Your task to perform on an android device: stop showing notifications on the lock screen Image 0: 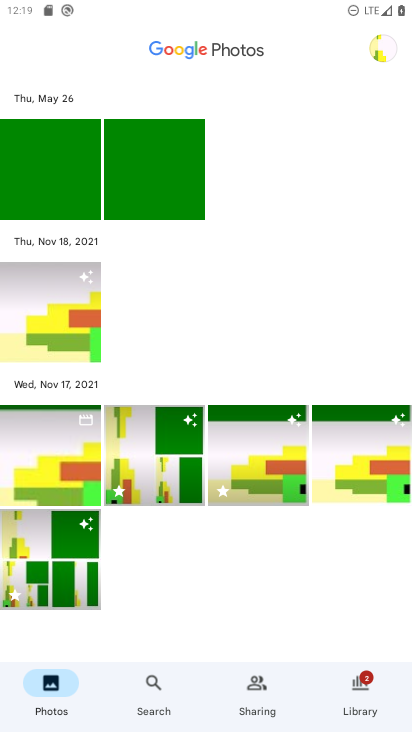
Step 0: press home button
Your task to perform on an android device: stop showing notifications on the lock screen Image 1: 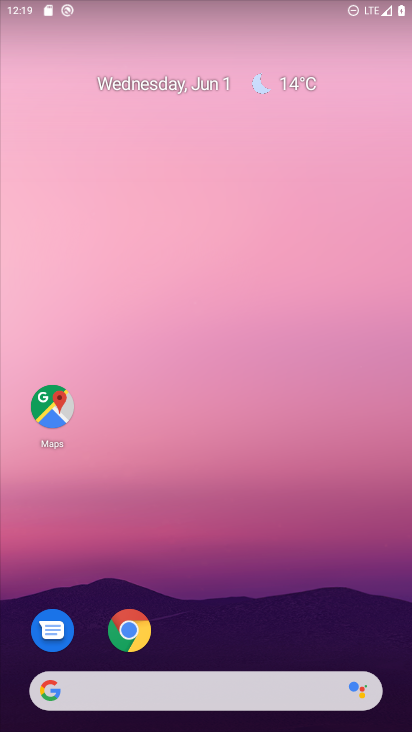
Step 1: drag from (290, 596) to (270, 81)
Your task to perform on an android device: stop showing notifications on the lock screen Image 2: 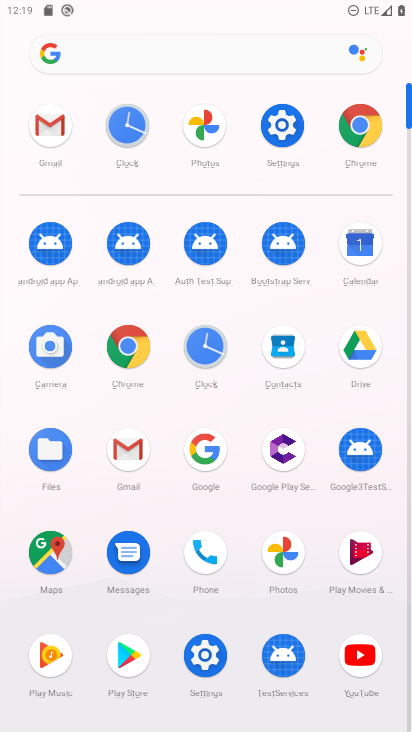
Step 2: click (289, 128)
Your task to perform on an android device: stop showing notifications on the lock screen Image 3: 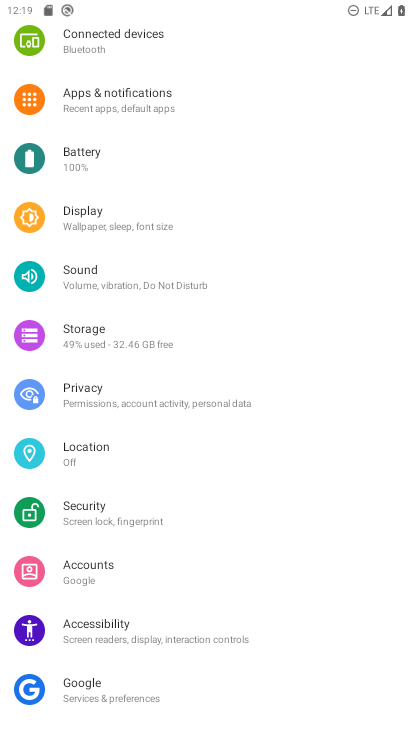
Step 3: drag from (224, 146) to (242, 610)
Your task to perform on an android device: stop showing notifications on the lock screen Image 4: 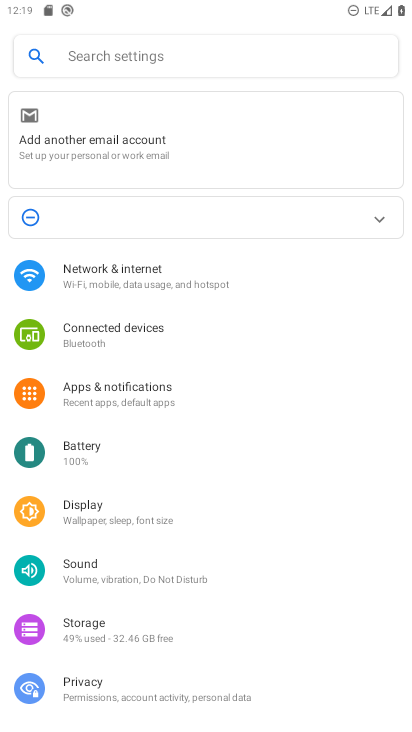
Step 4: click (132, 390)
Your task to perform on an android device: stop showing notifications on the lock screen Image 5: 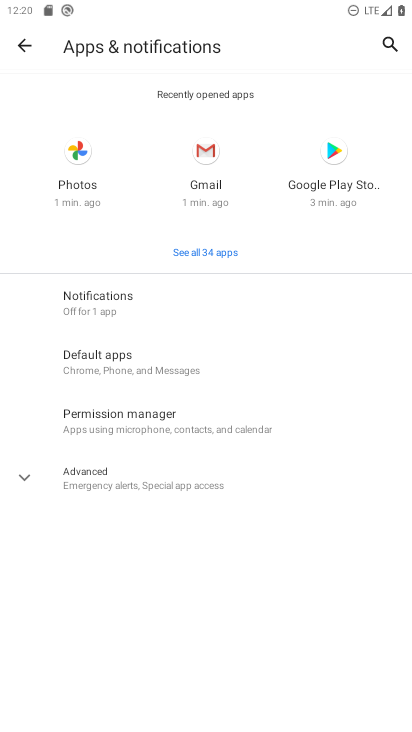
Step 5: click (101, 299)
Your task to perform on an android device: stop showing notifications on the lock screen Image 6: 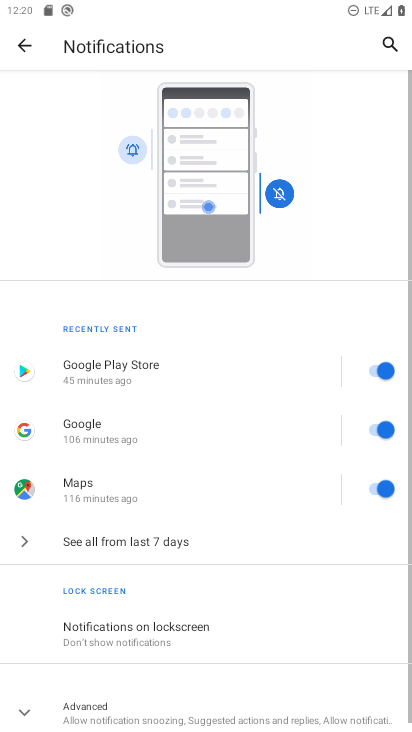
Step 6: drag from (212, 509) to (251, 87)
Your task to perform on an android device: stop showing notifications on the lock screen Image 7: 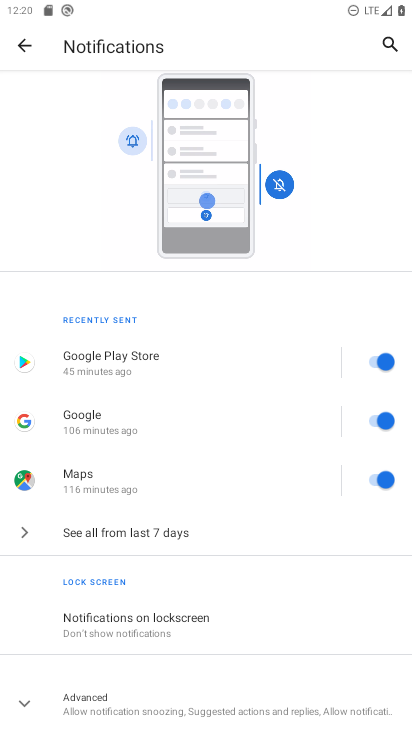
Step 7: click (186, 621)
Your task to perform on an android device: stop showing notifications on the lock screen Image 8: 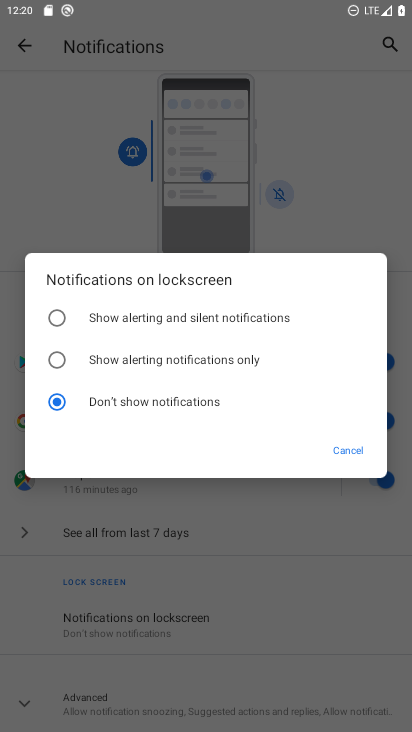
Step 8: task complete